Your task to perform on an android device: make emails show in primary in the gmail app Image 0: 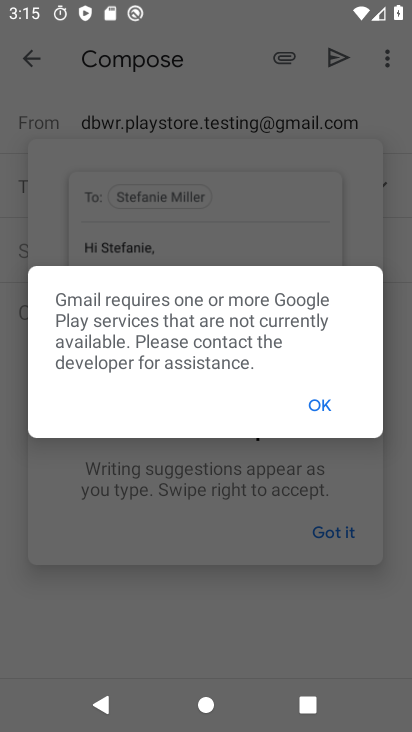
Step 0: press home button
Your task to perform on an android device: make emails show in primary in the gmail app Image 1: 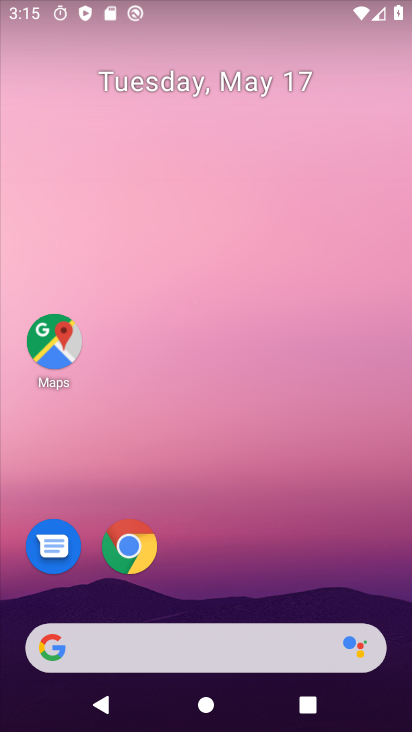
Step 1: drag from (225, 664) to (264, 126)
Your task to perform on an android device: make emails show in primary in the gmail app Image 2: 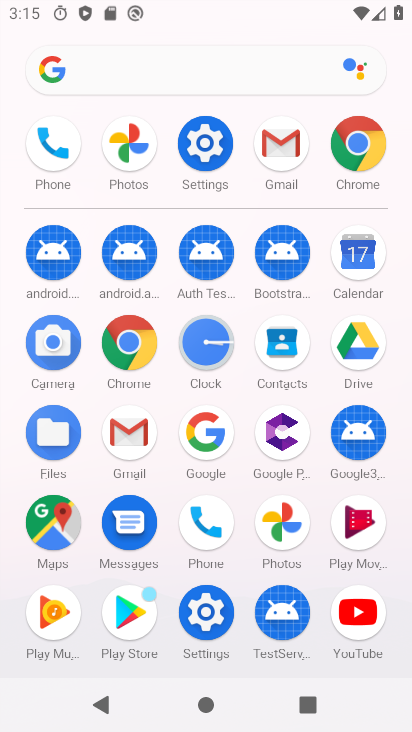
Step 2: click (124, 441)
Your task to perform on an android device: make emails show in primary in the gmail app Image 3: 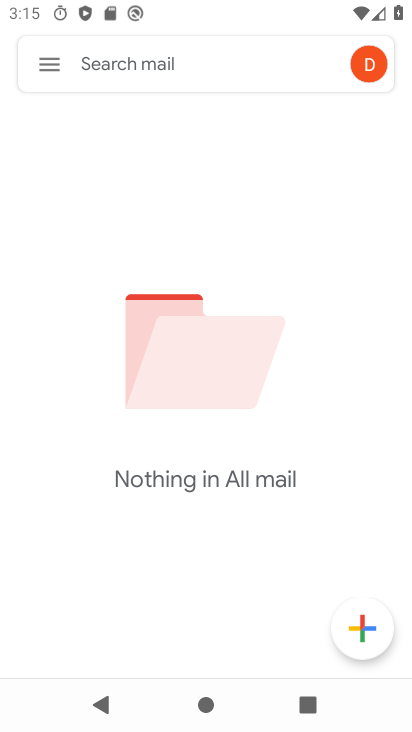
Step 3: click (57, 79)
Your task to perform on an android device: make emails show in primary in the gmail app Image 4: 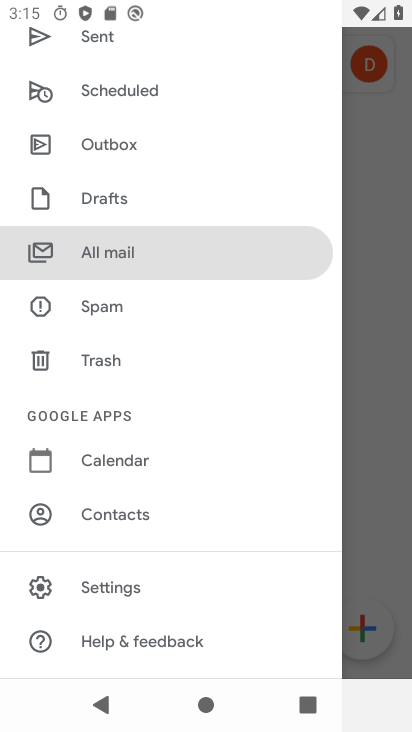
Step 4: click (150, 589)
Your task to perform on an android device: make emails show in primary in the gmail app Image 5: 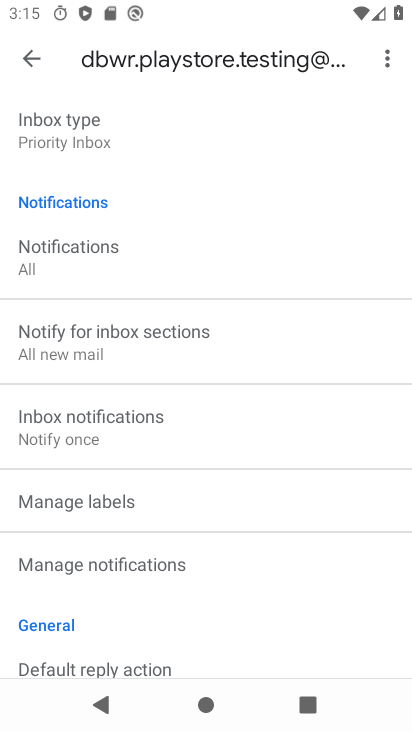
Step 5: task complete